Your task to perform on an android device: What is the news today? Image 0: 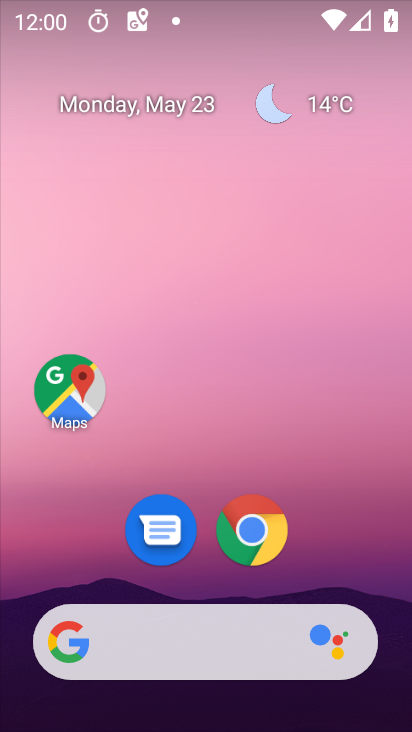
Step 0: drag from (2, 210) to (372, 168)
Your task to perform on an android device: What is the news today? Image 1: 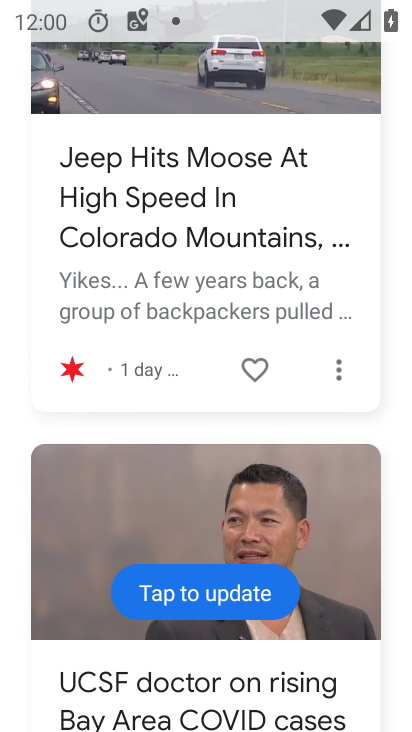
Step 1: task complete